Your task to perform on an android device: open chrome and create a bookmark for the current page Image 0: 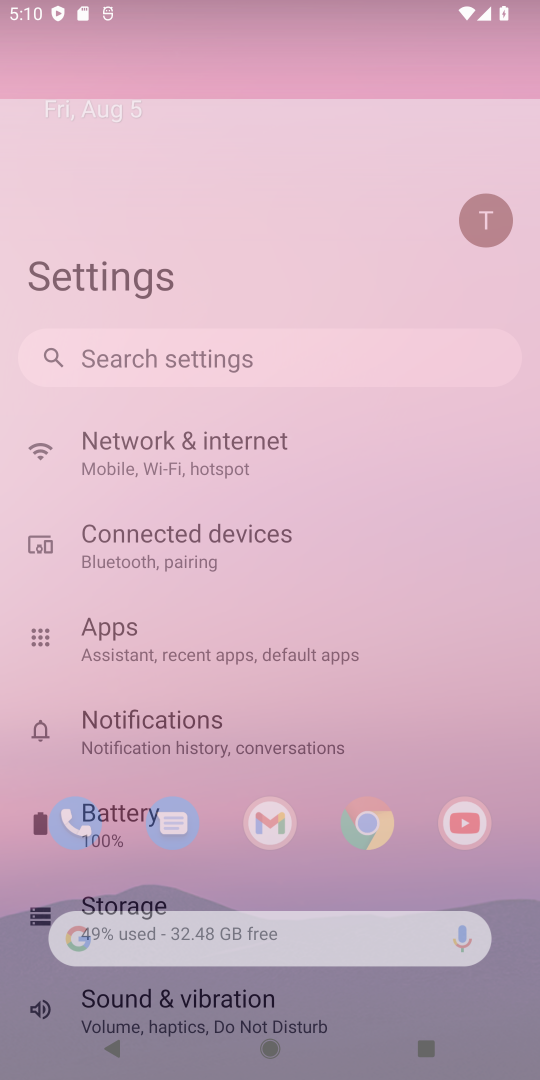
Step 0: press home button
Your task to perform on an android device: open chrome and create a bookmark for the current page Image 1: 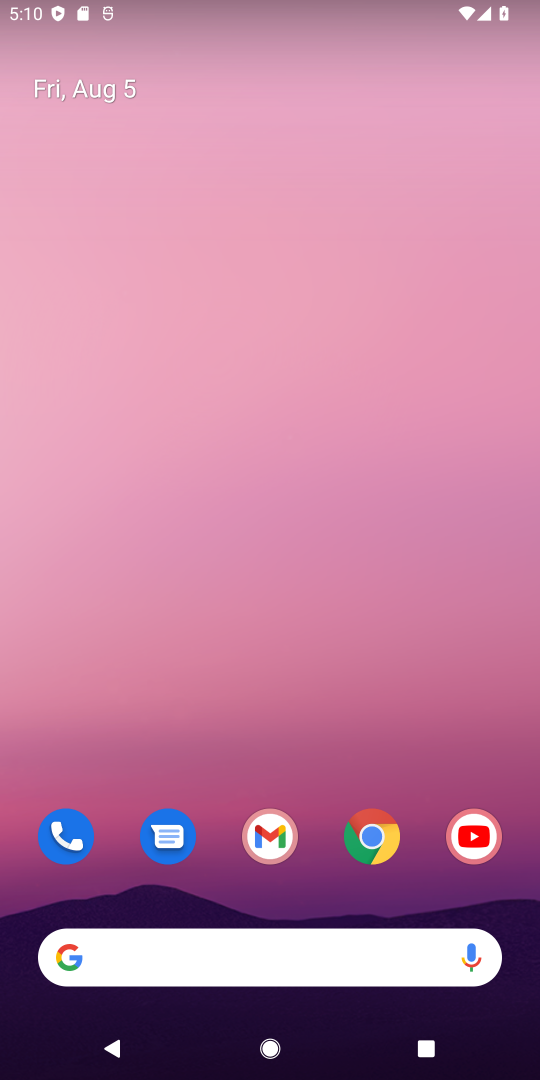
Step 1: click (367, 827)
Your task to perform on an android device: open chrome and create a bookmark for the current page Image 2: 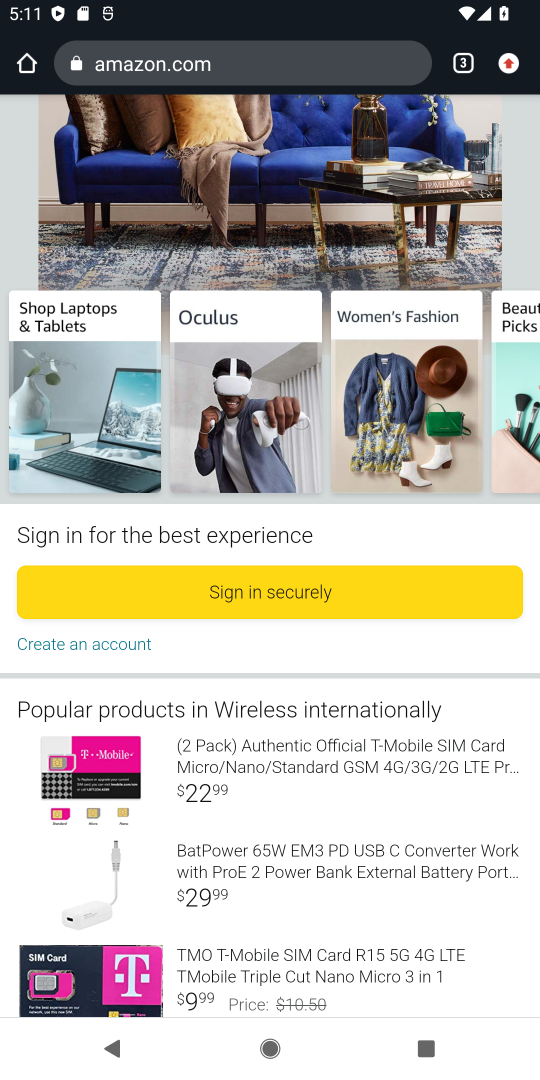
Step 2: click (509, 63)
Your task to perform on an android device: open chrome and create a bookmark for the current page Image 3: 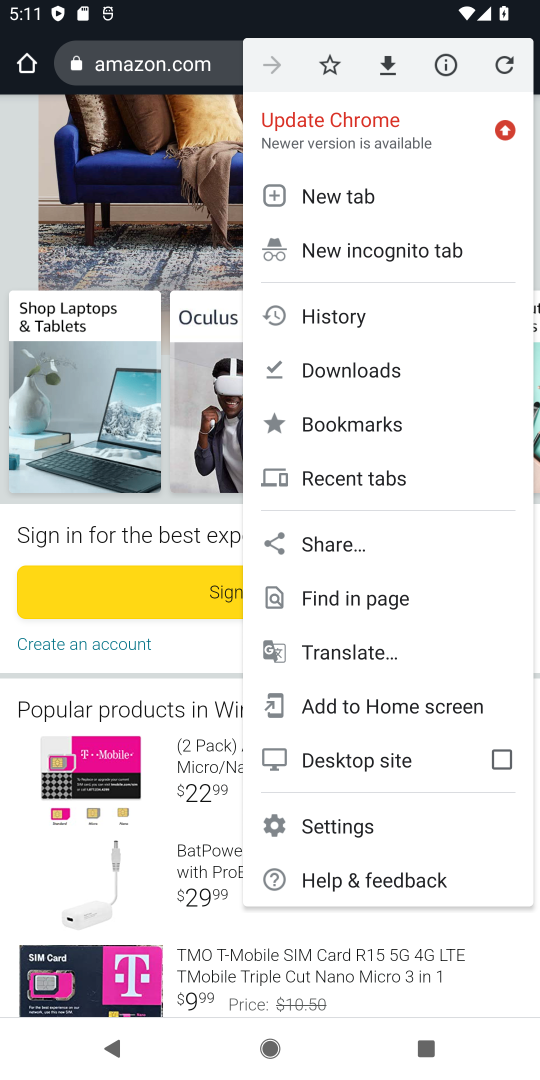
Step 3: click (320, 61)
Your task to perform on an android device: open chrome and create a bookmark for the current page Image 4: 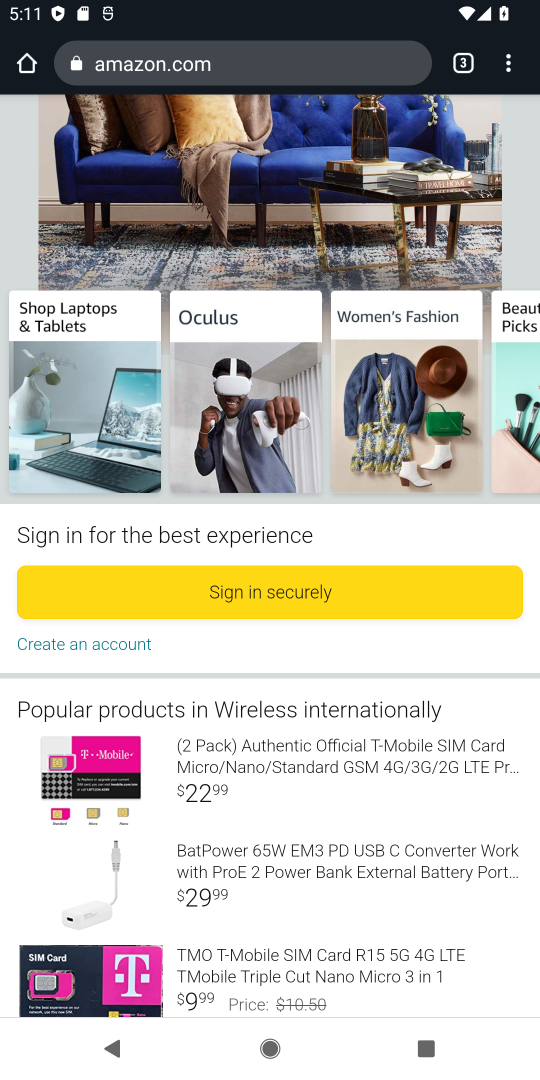
Step 4: click (320, 61)
Your task to perform on an android device: open chrome and create a bookmark for the current page Image 5: 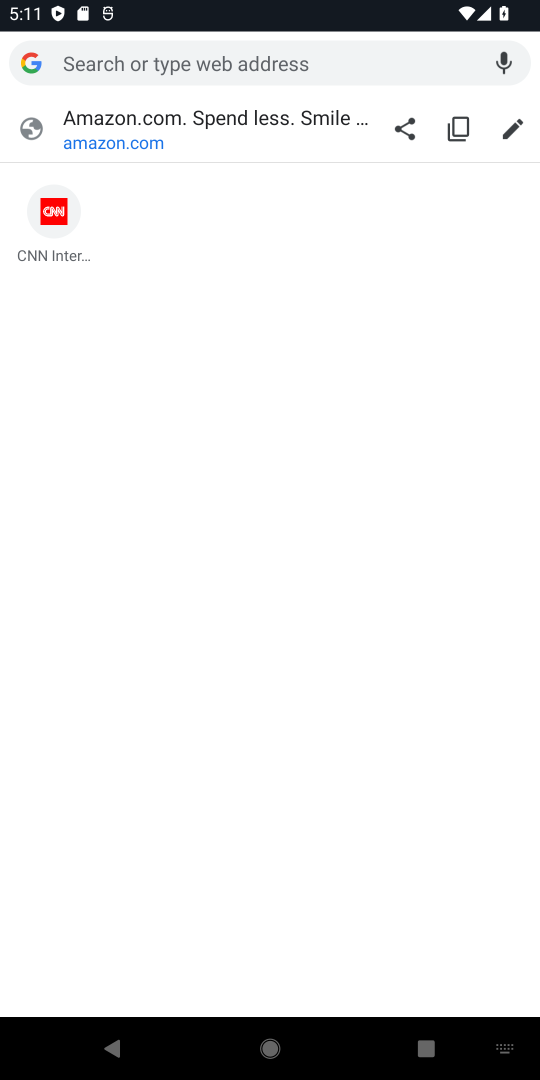
Step 5: task complete